Your task to perform on an android device: open app "DoorDash - Food Delivery" Image 0: 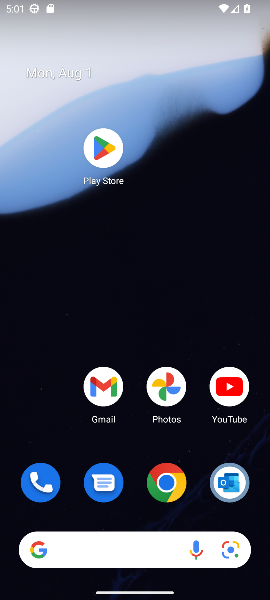
Step 0: click (101, 148)
Your task to perform on an android device: open app "DoorDash - Food Delivery" Image 1: 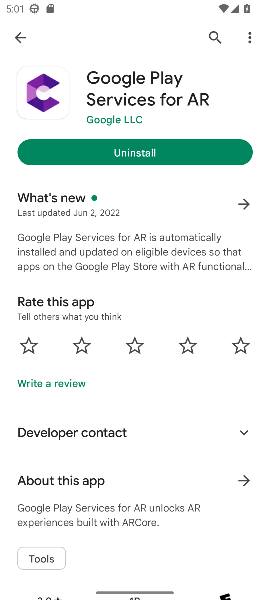
Step 1: click (213, 33)
Your task to perform on an android device: open app "DoorDash - Food Delivery" Image 2: 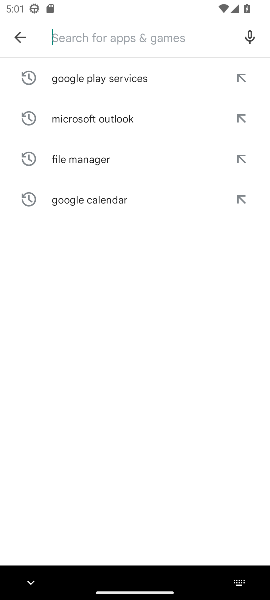
Step 2: type "DoorDash - Food Delivery"
Your task to perform on an android device: open app "DoorDash - Food Delivery" Image 3: 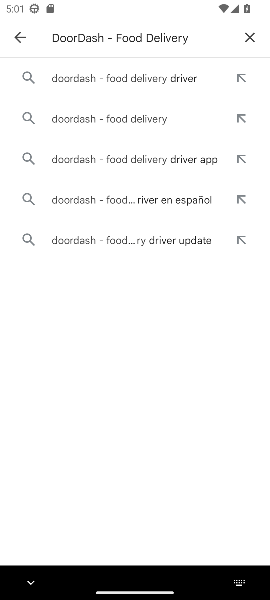
Step 3: click (110, 81)
Your task to perform on an android device: open app "DoorDash - Food Delivery" Image 4: 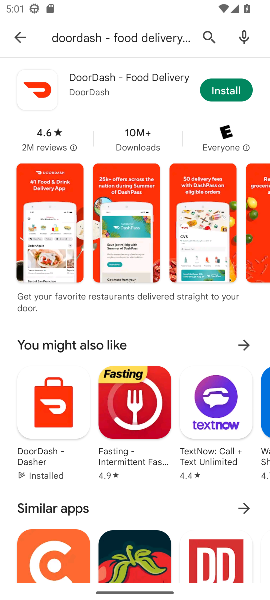
Step 4: task complete